Your task to perform on an android device: Play the last video I watched on Youtube Image 0: 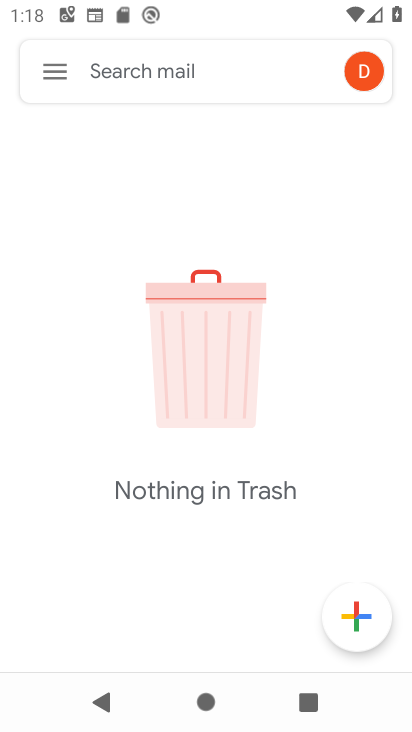
Step 0: press home button
Your task to perform on an android device: Play the last video I watched on Youtube Image 1: 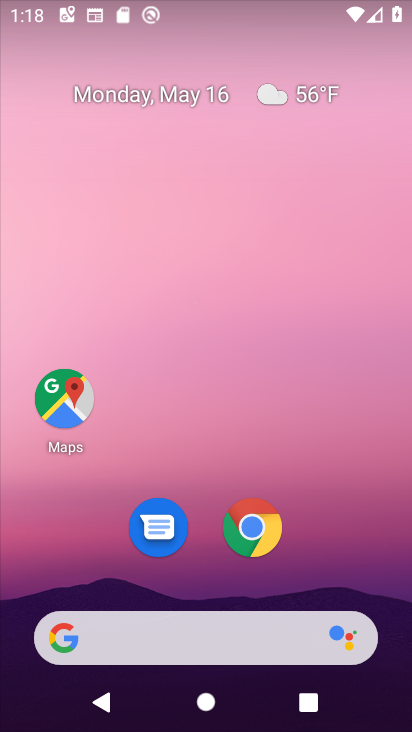
Step 1: drag from (215, 629) to (138, 17)
Your task to perform on an android device: Play the last video I watched on Youtube Image 2: 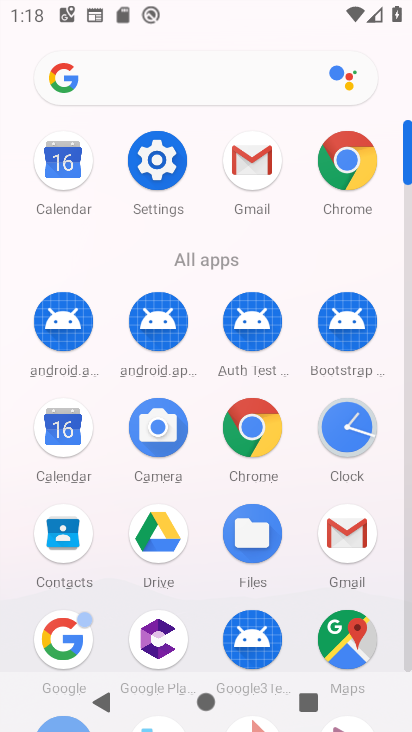
Step 2: drag from (215, 582) to (4, 537)
Your task to perform on an android device: Play the last video I watched on Youtube Image 3: 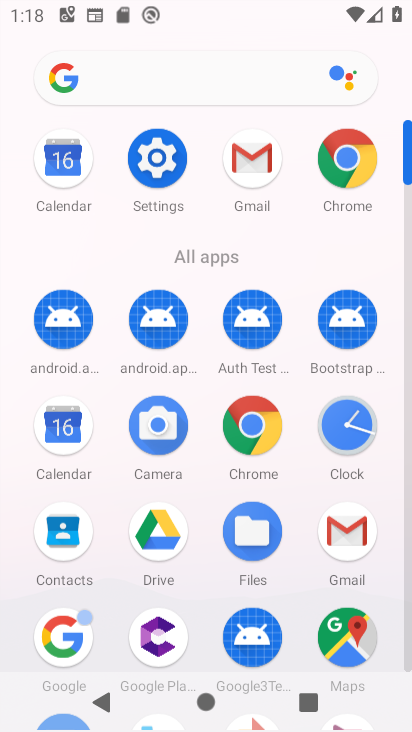
Step 3: drag from (71, 584) to (17, 110)
Your task to perform on an android device: Play the last video I watched on Youtube Image 4: 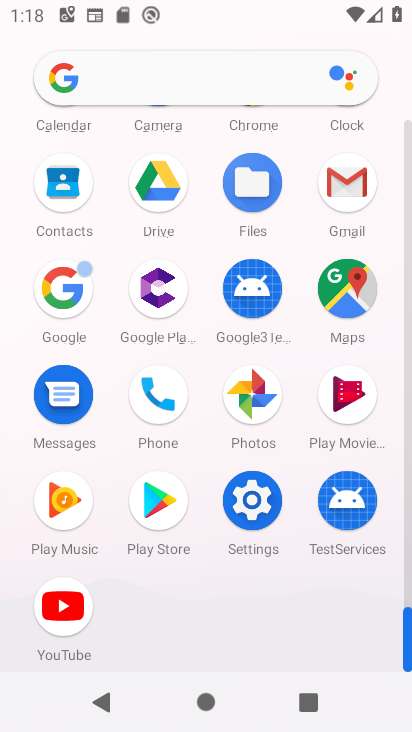
Step 4: click (60, 609)
Your task to perform on an android device: Play the last video I watched on Youtube Image 5: 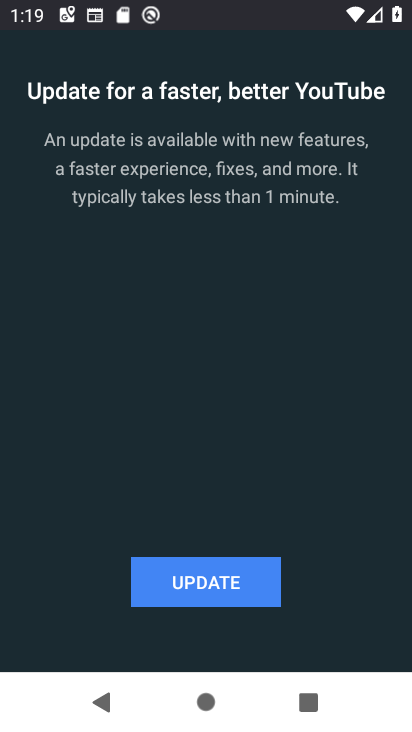
Step 5: click (242, 568)
Your task to perform on an android device: Play the last video I watched on Youtube Image 6: 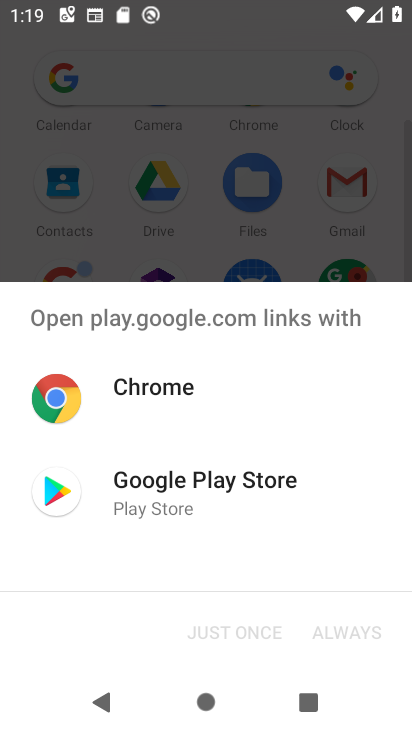
Step 6: click (237, 490)
Your task to perform on an android device: Play the last video I watched on Youtube Image 7: 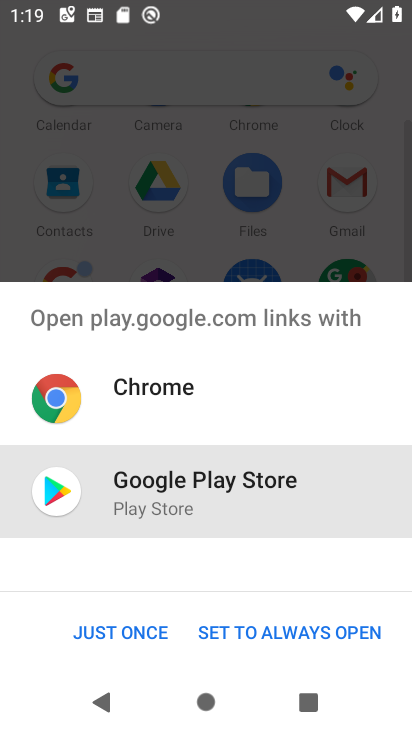
Step 7: click (134, 626)
Your task to perform on an android device: Play the last video I watched on Youtube Image 8: 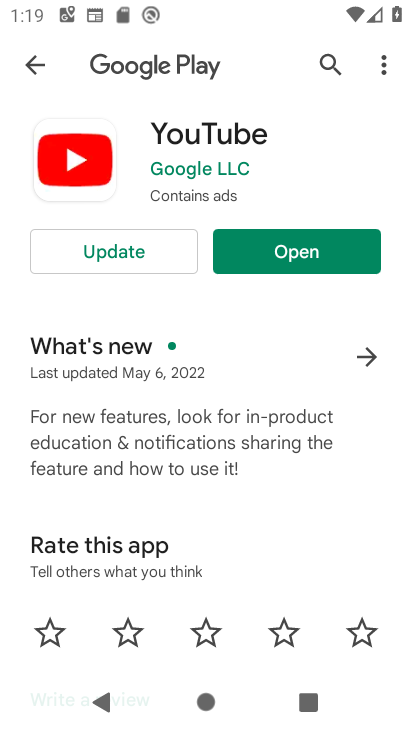
Step 8: click (142, 263)
Your task to perform on an android device: Play the last video I watched on Youtube Image 9: 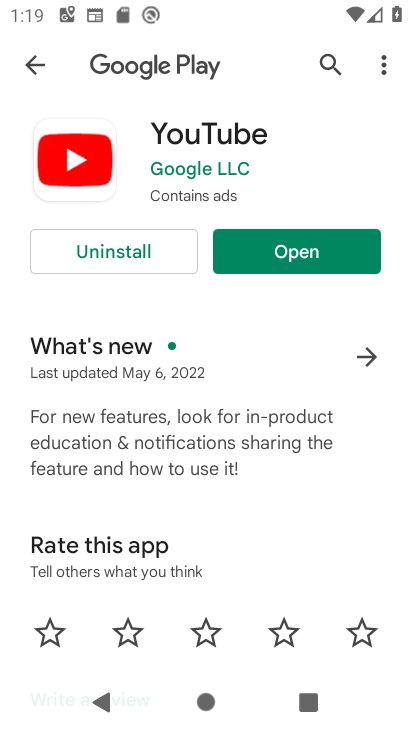
Step 9: click (343, 258)
Your task to perform on an android device: Play the last video I watched on Youtube Image 10: 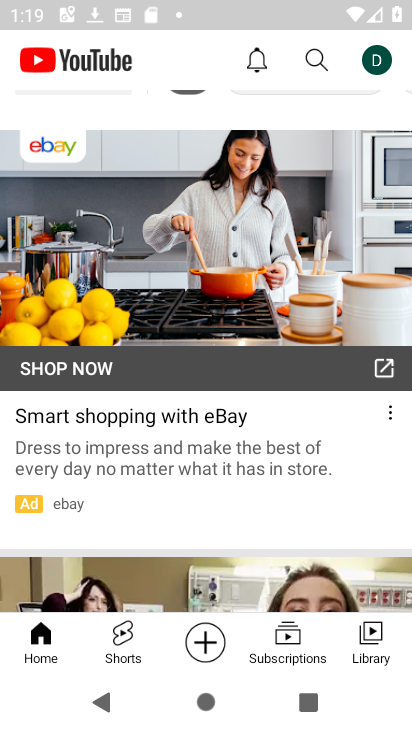
Step 10: click (378, 650)
Your task to perform on an android device: Play the last video I watched on Youtube Image 11: 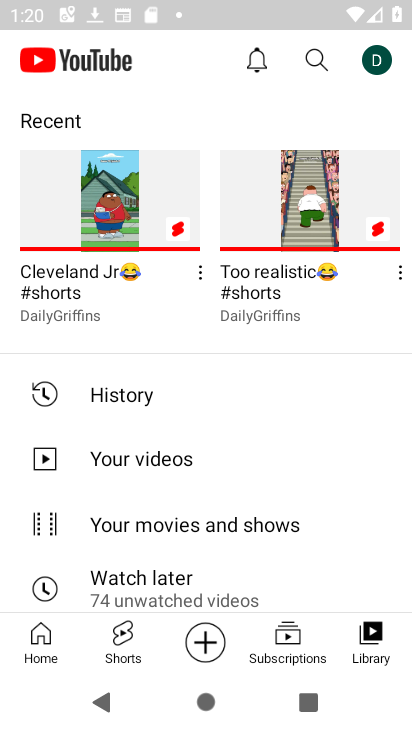
Step 11: click (133, 403)
Your task to perform on an android device: Play the last video I watched on Youtube Image 12: 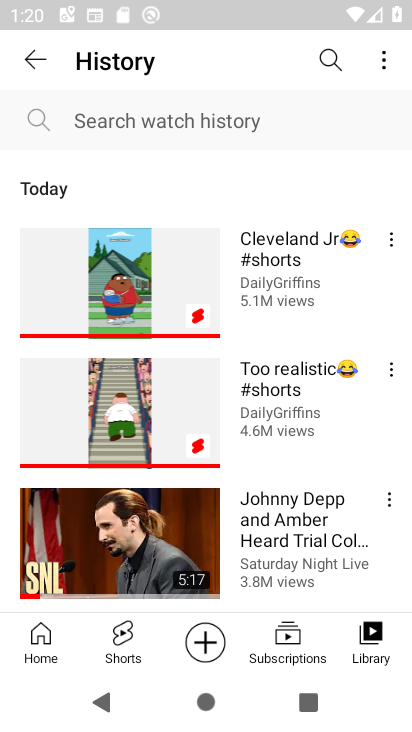
Step 12: click (182, 316)
Your task to perform on an android device: Play the last video I watched on Youtube Image 13: 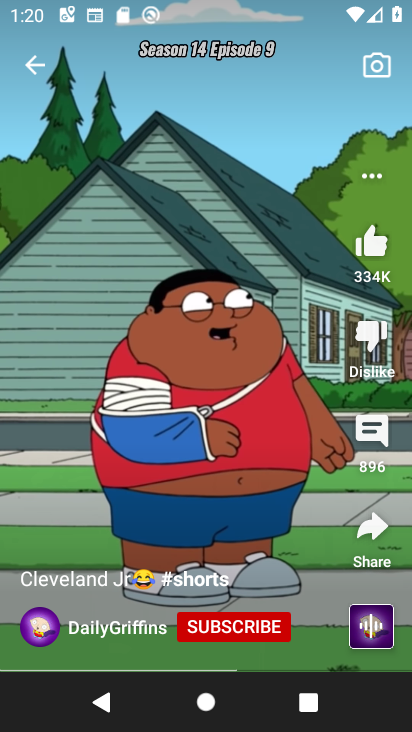
Step 13: task complete